Your task to perform on an android device: Is it going to rain tomorrow? Image 0: 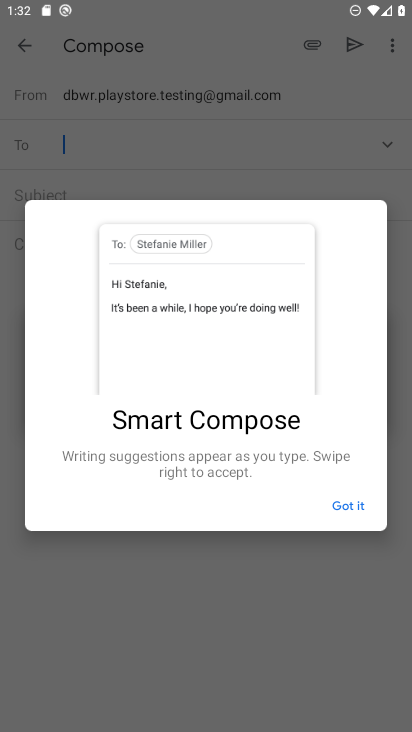
Step 0: press home button
Your task to perform on an android device: Is it going to rain tomorrow? Image 1: 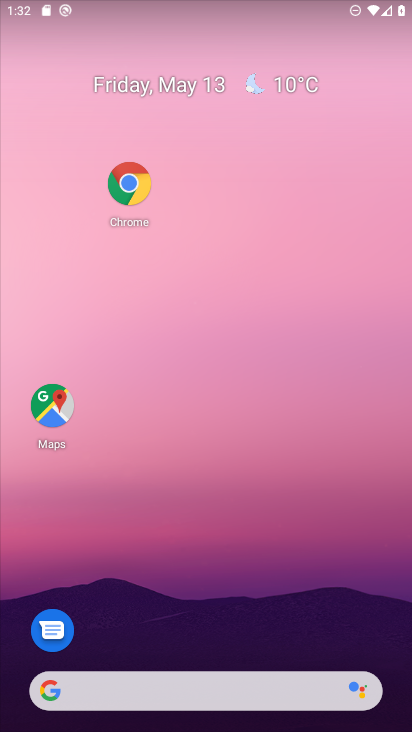
Step 1: click (290, 81)
Your task to perform on an android device: Is it going to rain tomorrow? Image 2: 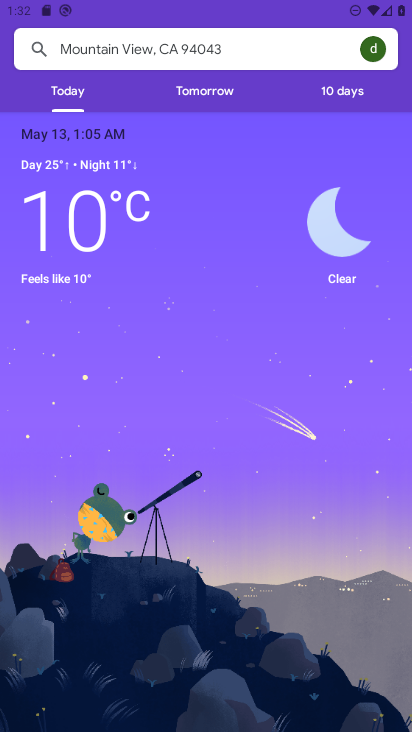
Step 2: click (204, 103)
Your task to perform on an android device: Is it going to rain tomorrow? Image 3: 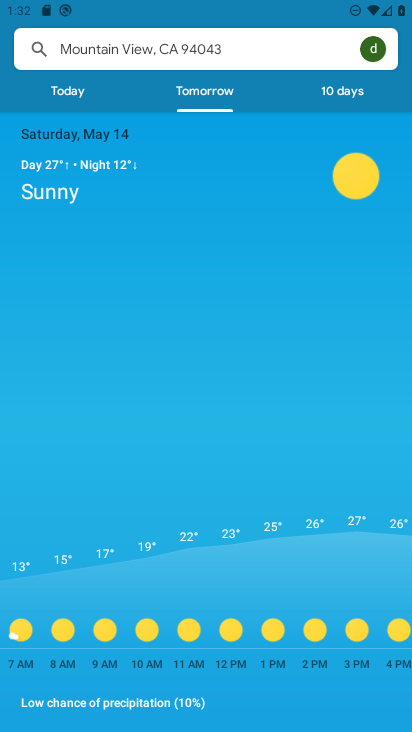
Step 3: task complete